Your task to perform on an android device: choose inbox layout in the gmail app Image 0: 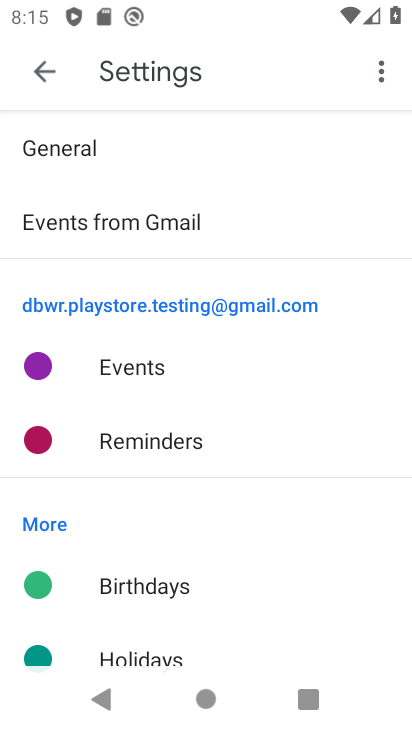
Step 0: press home button
Your task to perform on an android device: choose inbox layout in the gmail app Image 1: 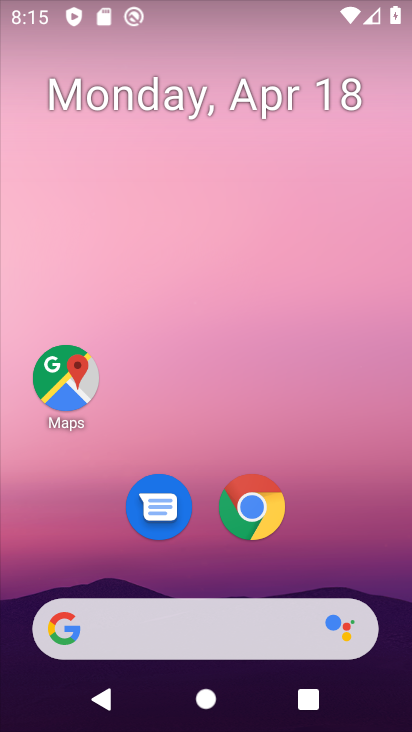
Step 1: drag from (200, 534) to (191, 156)
Your task to perform on an android device: choose inbox layout in the gmail app Image 2: 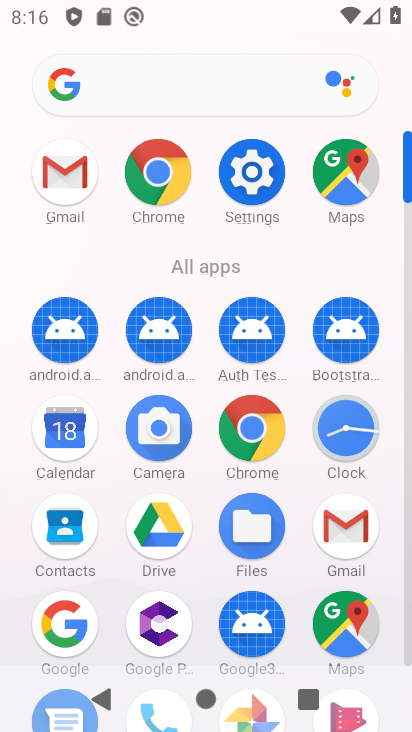
Step 2: click (58, 180)
Your task to perform on an android device: choose inbox layout in the gmail app Image 3: 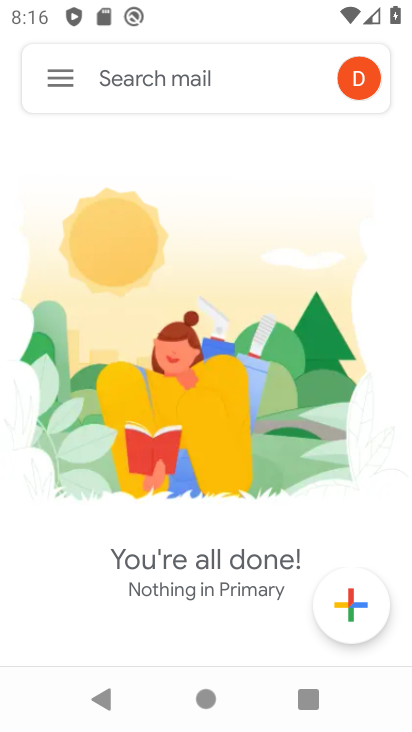
Step 3: click (56, 80)
Your task to perform on an android device: choose inbox layout in the gmail app Image 4: 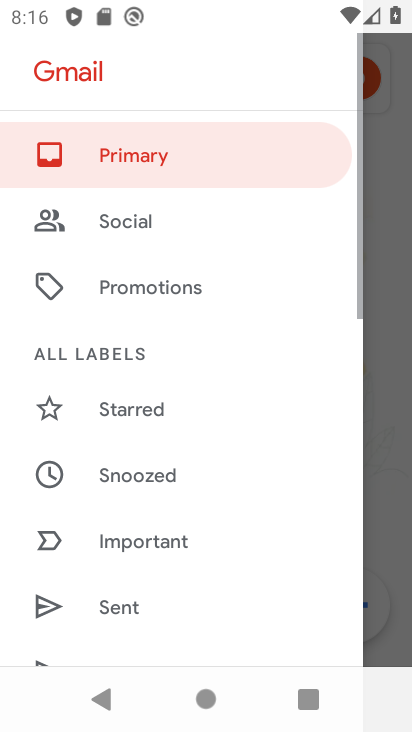
Step 4: drag from (256, 524) to (272, 8)
Your task to perform on an android device: choose inbox layout in the gmail app Image 5: 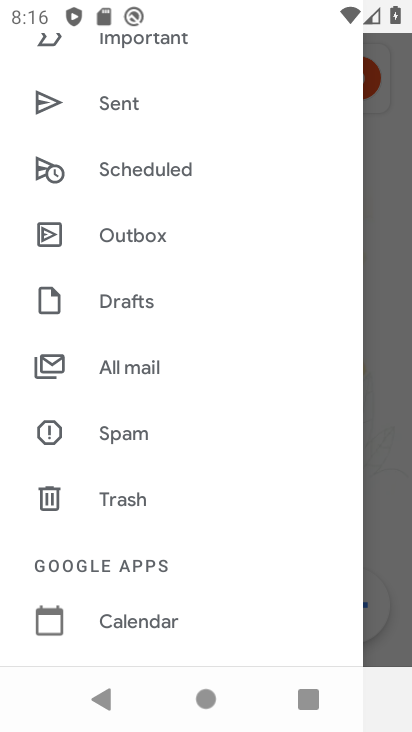
Step 5: drag from (193, 593) to (194, 157)
Your task to perform on an android device: choose inbox layout in the gmail app Image 6: 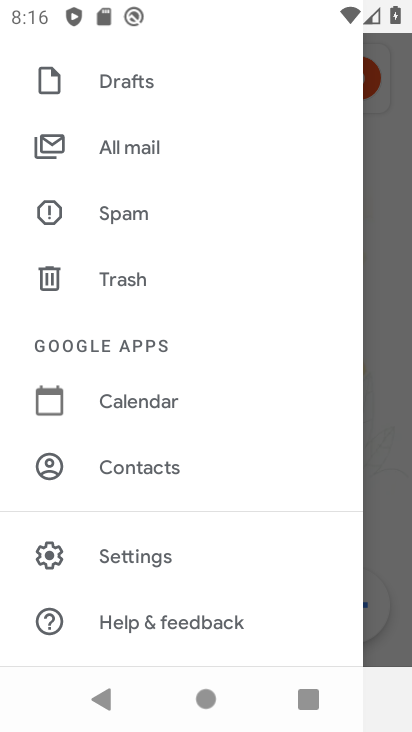
Step 6: click (156, 549)
Your task to perform on an android device: choose inbox layout in the gmail app Image 7: 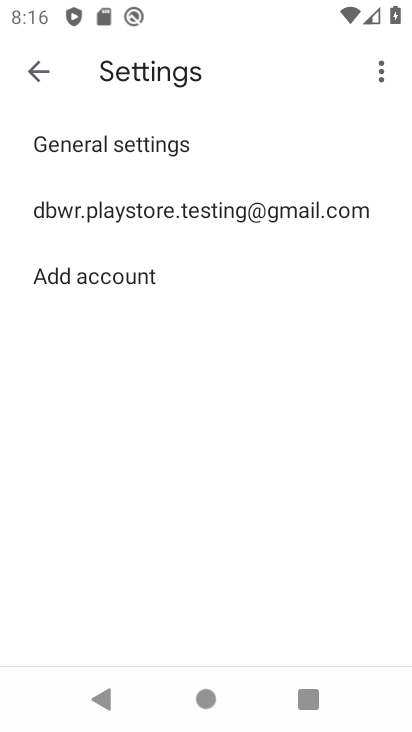
Step 7: click (149, 203)
Your task to perform on an android device: choose inbox layout in the gmail app Image 8: 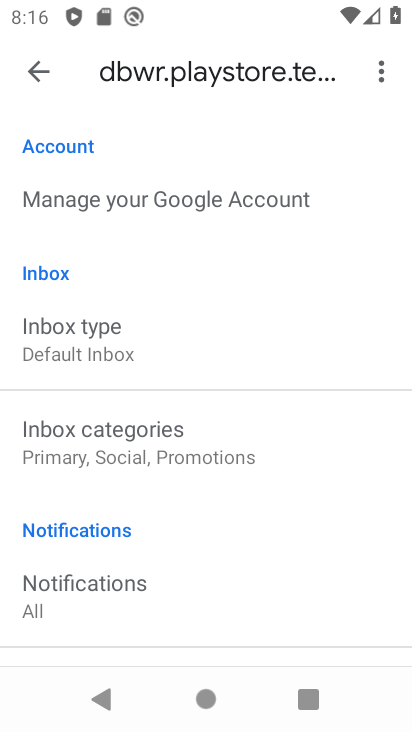
Step 8: click (62, 350)
Your task to perform on an android device: choose inbox layout in the gmail app Image 9: 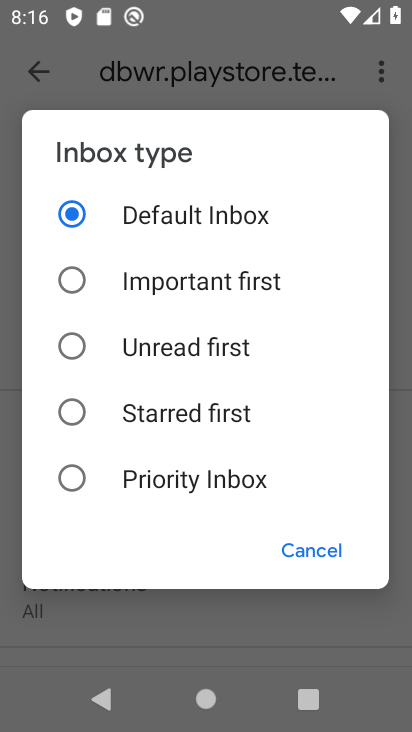
Step 9: click (62, 477)
Your task to perform on an android device: choose inbox layout in the gmail app Image 10: 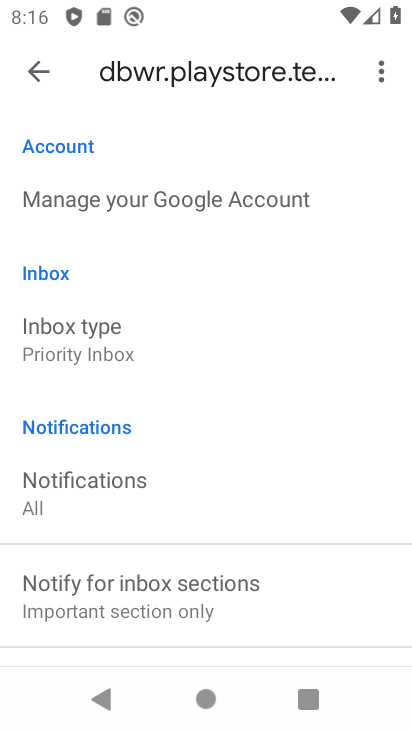
Step 10: task complete